Your task to perform on an android device: clear all cookies in the chrome app Image 0: 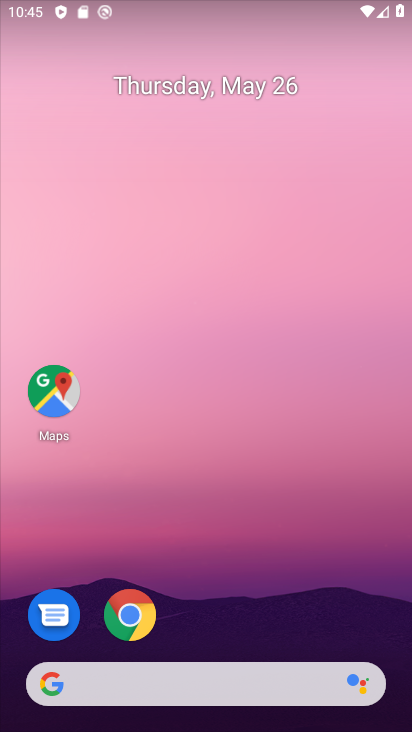
Step 0: click (125, 610)
Your task to perform on an android device: clear all cookies in the chrome app Image 1: 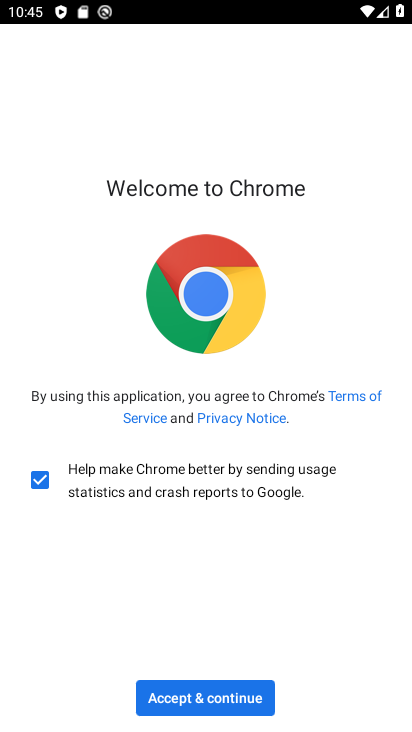
Step 1: click (205, 718)
Your task to perform on an android device: clear all cookies in the chrome app Image 2: 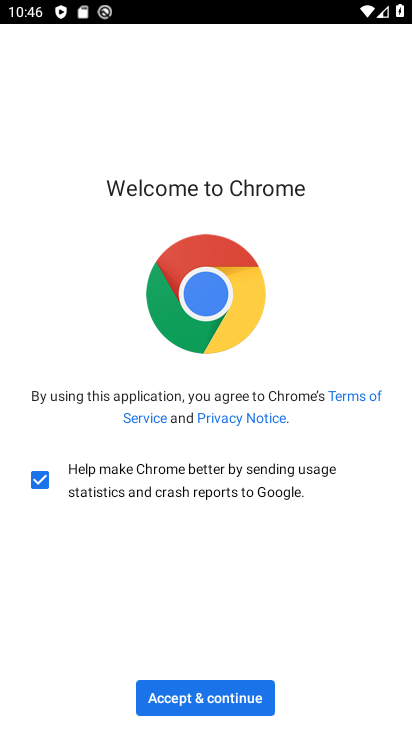
Step 2: click (233, 704)
Your task to perform on an android device: clear all cookies in the chrome app Image 3: 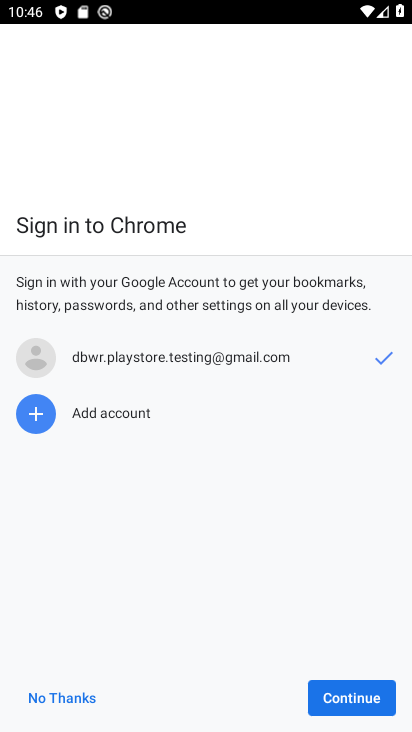
Step 3: click (378, 706)
Your task to perform on an android device: clear all cookies in the chrome app Image 4: 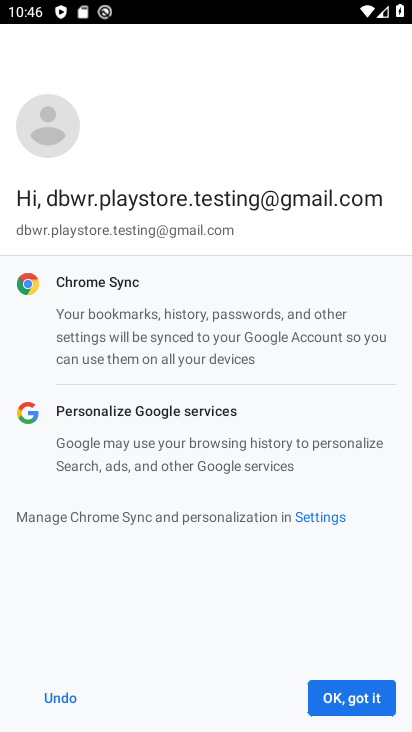
Step 4: click (357, 701)
Your task to perform on an android device: clear all cookies in the chrome app Image 5: 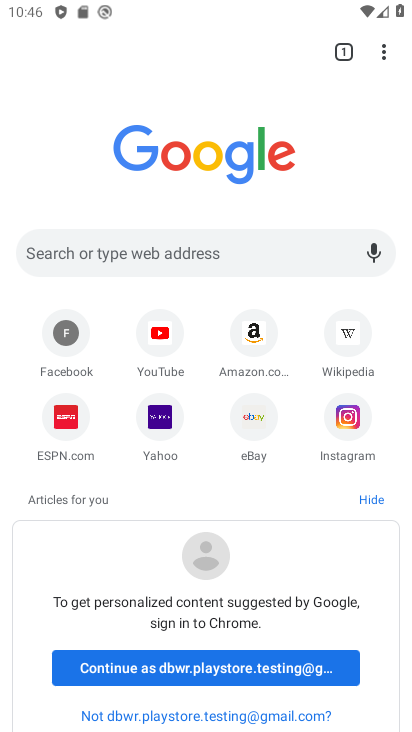
Step 5: task complete